Your task to perform on an android device: change the clock style Image 0: 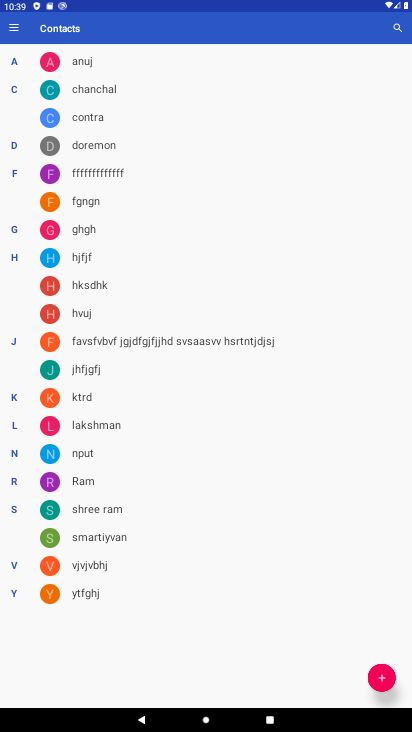
Step 0: press home button
Your task to perform on an android device: change the clock style Image 1: 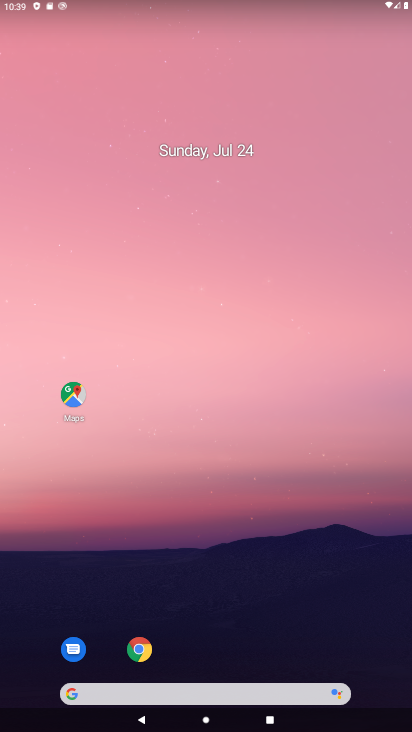
Step 1: drag from (204, 694) to (195, 59)
Your task to perform on an android device: change the clock style Image 2: 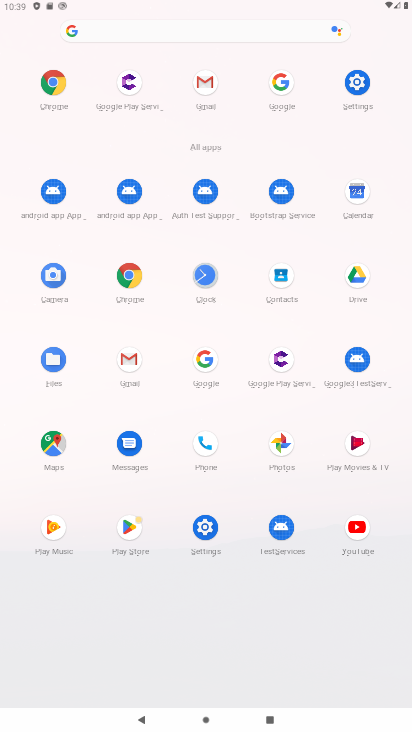
Step 2: click (211, 283)
Your task to perform on an android device: change the clock style Image 3: 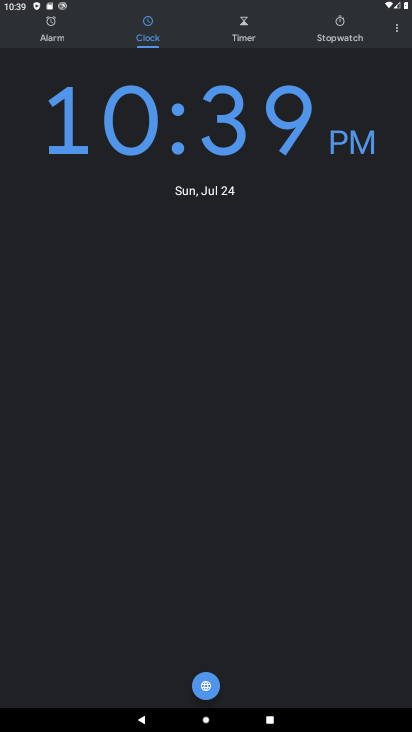
Step 3: click (400, 31)
Your task to perform on an android device: change the clock style Image 4: 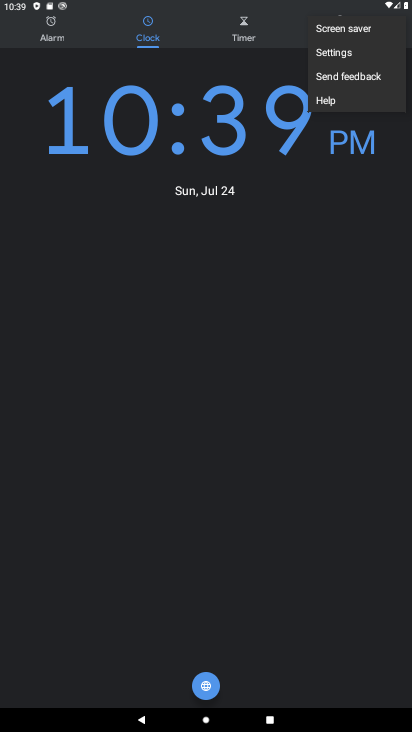
Step 4: click (360, 57)
Your task to perform on an android device: change the clock style Image 5: 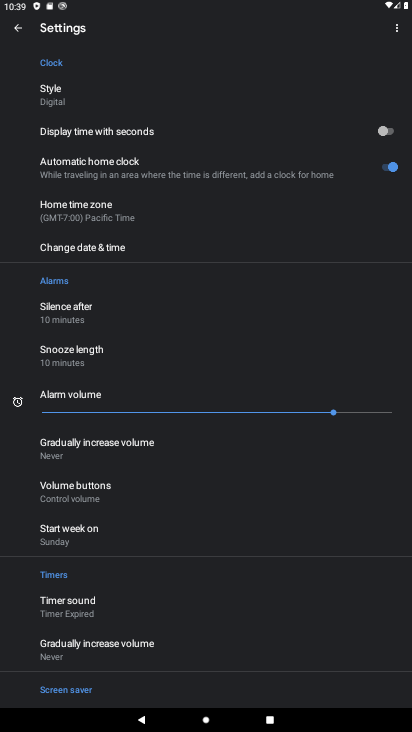
Step 5: click (113, 100)
Your task to perform on an android device: change the clock style Image 6: 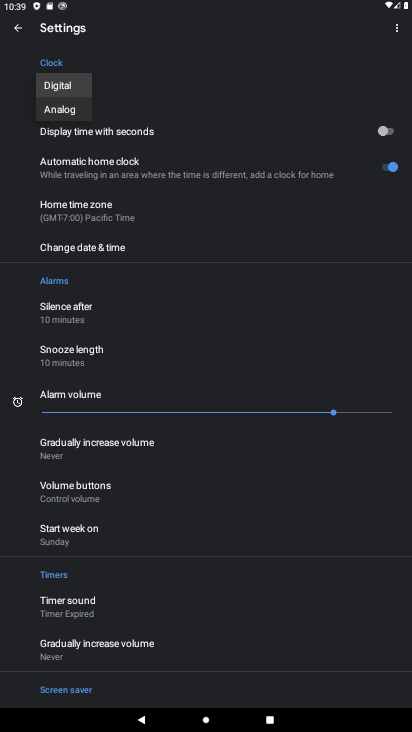
Step 6: click (67, 113)
Your task to perform on an android device: change the clock style Image 7: 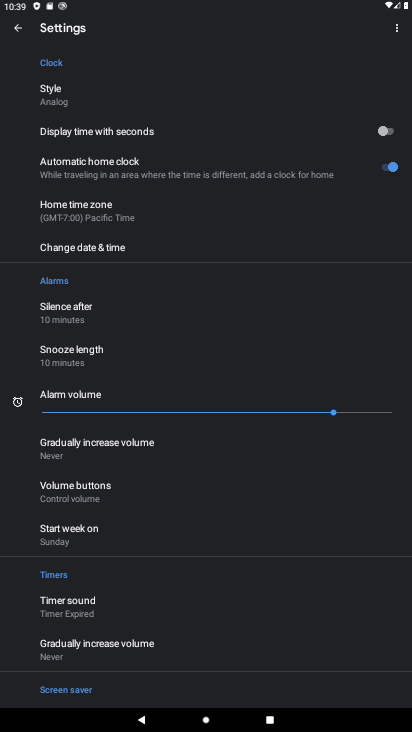
Step 7: task complete